Your task to perform on an android device: Search for "apple airpods" on bestbuy, select the first entry, and add it to the cart. Image 0: 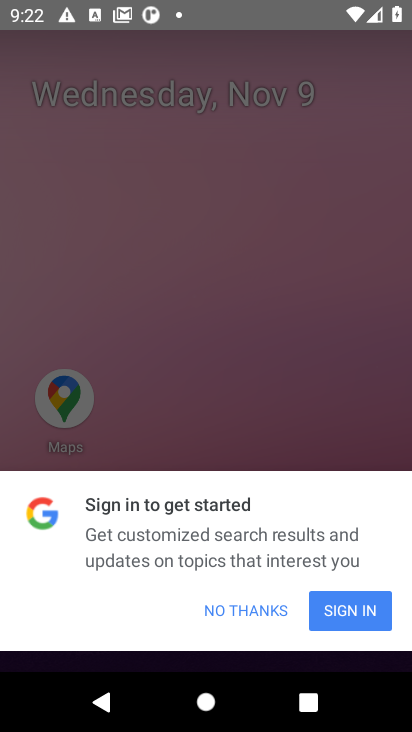
Step 0: press home button
Your task to perform on an android device: Search for "apple airpods" on bestbuy, select the first entry, and add it to the cart. Image 1: 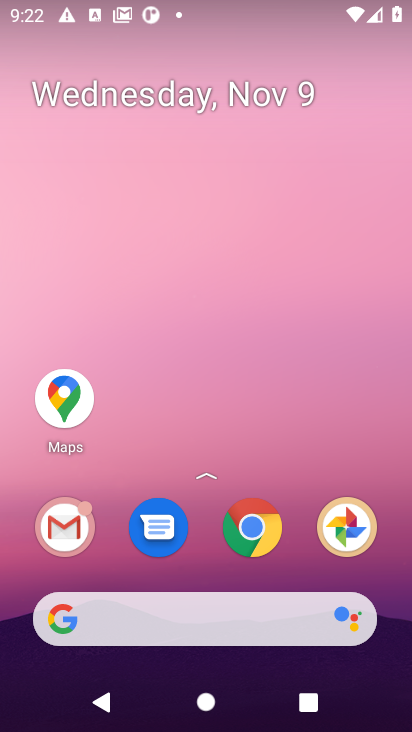
Step 1: click (259, 530)
Your task to perform on an android device: Search for "apple airpods" on bestbuy, select the first entry, and add it to the cart. Image 2: 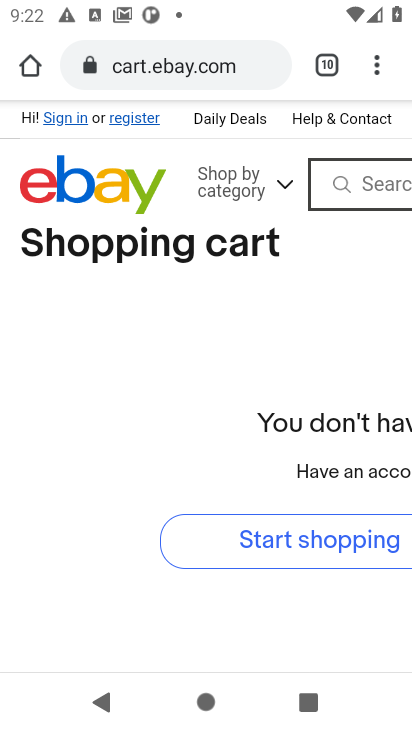
Step 2: click (214, 66)
Your task to perform on an android device: Search for "apple airpods" on bestbuy, select the first entry, and add it to the cart. Image 3: 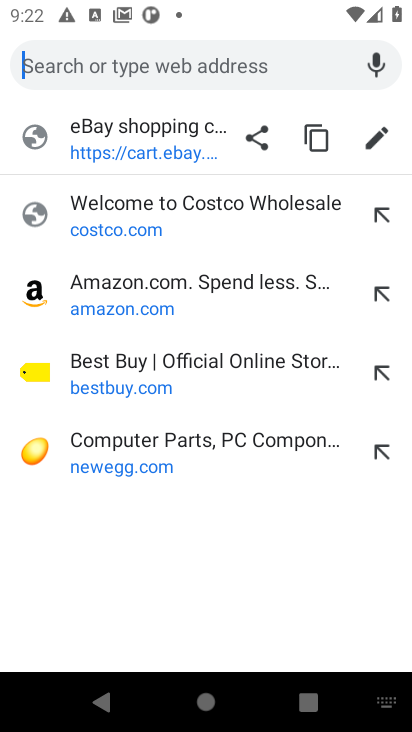
Step 3: click (106, 392)
Your task to perform on an android device: Search for "apple airpods" on bestbuy, select the first entry, and add it to the cart. Image 4: 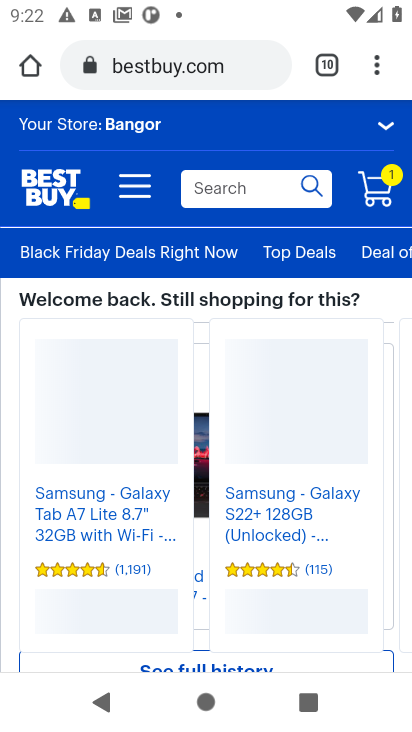
Step 4: click (213, 188)
Your task to perform on an android device: Search for "apple airpods" on bestbuy, select the first entry, and add it to the cart. Image 5: 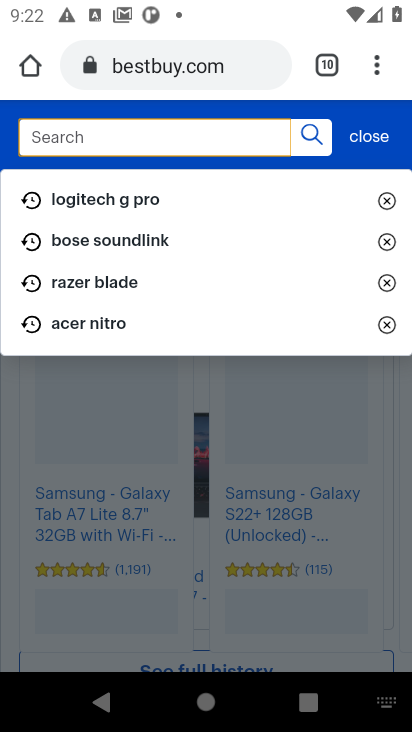
Step 5: type "apple airpods"
Your task to perform on an android device: Search for "apple airpods" on bestbuy, select the first entry, and add it to the cart. Image 6: 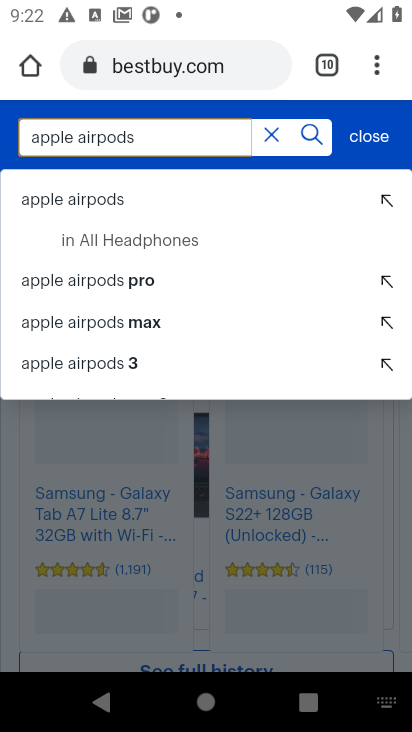
Step 6: click (100, 202)
Your task to perform on an android device: Search for "apple airpods" on bestbuy, select the first entry, and add it to the cart. Image 7: 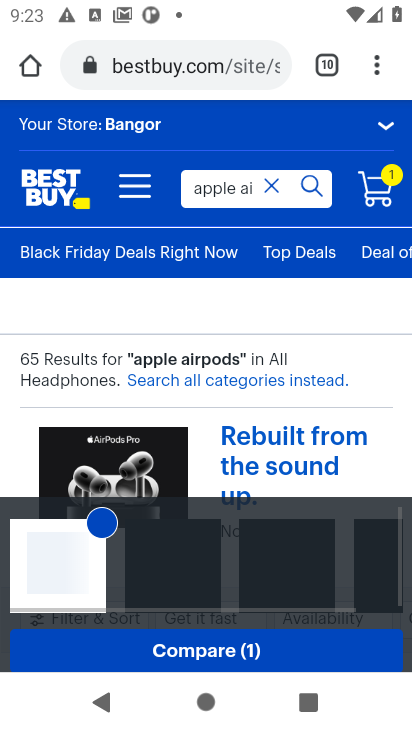
Step 7: drag from (213, 494) to (219, 275)
Your task to perform on an android device: Search for "apple airpods" on bestbuy, select the first entry, and add it to the cart. Image 8: 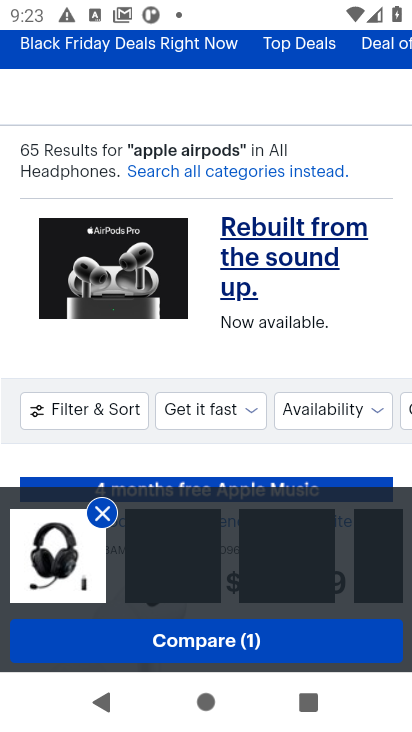
Step 8: drag from (182, 403) to (188, 123)
Your task to perform on an android device: Search for "apple airpods" on bestbuy, select the first entry, and add it to the cart. Image 9: 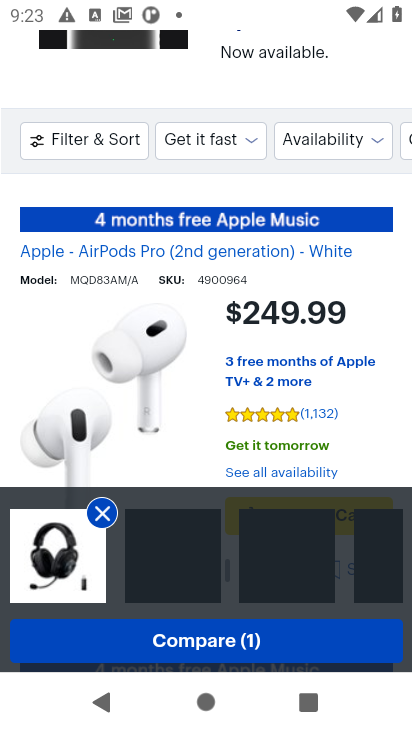
Step 9: drag from (172, 337) to (184, 186)
Your task to perform on an android device: Search for "apple airpods" on bestbuy, select the first entry, and add it to the cart. Image 10: 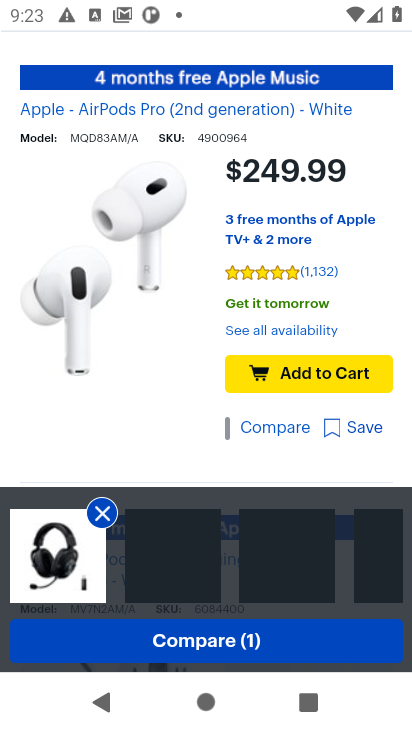
Step 10: click (305, 369)
Your task to perform on an android device: Search for "apple airpods" on bestbuy, select the first entry, and add it to the cart. Image 11: 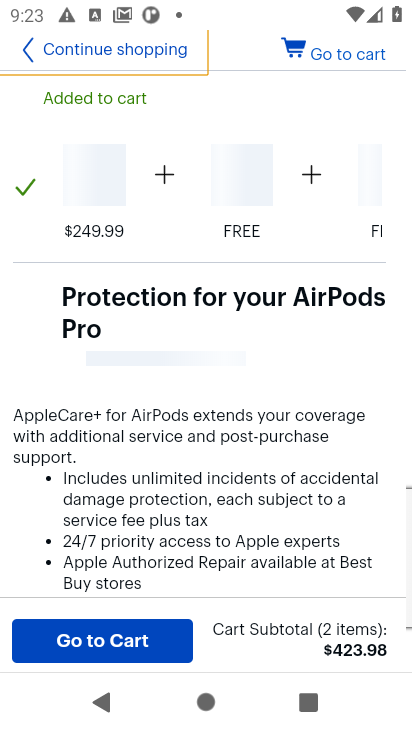
Step 11: task complete